Your task to perform on an android device: add a label to a message in the gmail app Image 0: 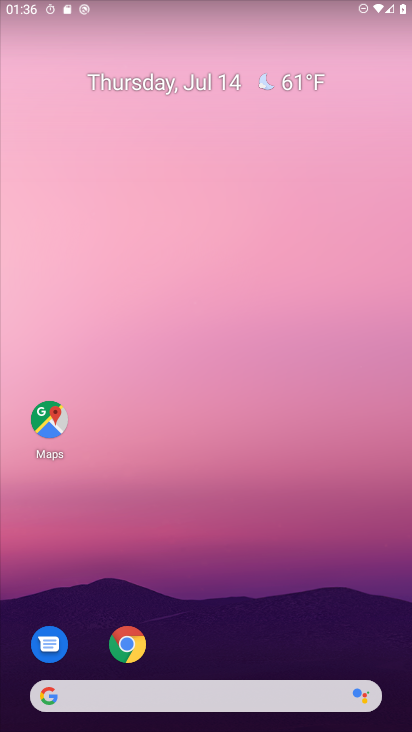
Step 0: drag from (322, 579) to (259, 163)
Your task to perform on an android device: add a label to a message in the gmail app Image 1: 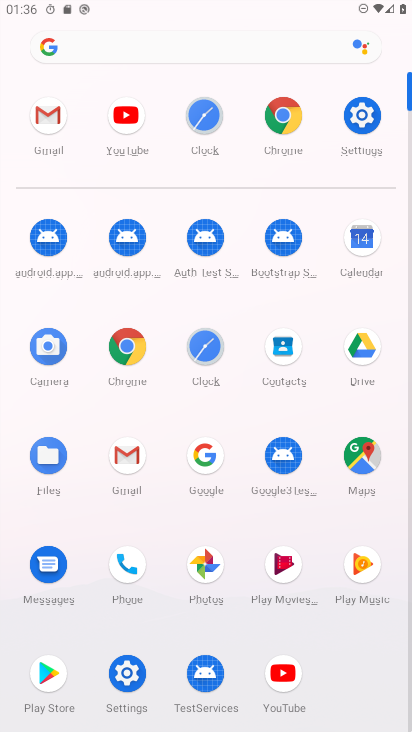
Step 1: click (45, 125)
Your task to perform on an android device: add a label to a message in the gmail app Image 2: 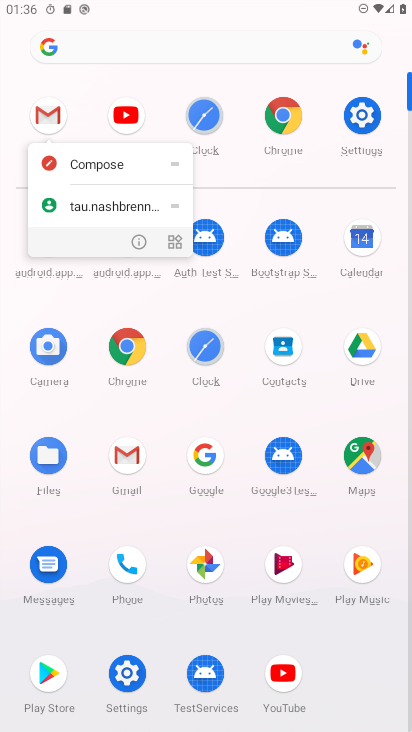
Step 2: click (54, 103)
Your task to perform on an android device: add a label to a message in the gmail app Image 3: 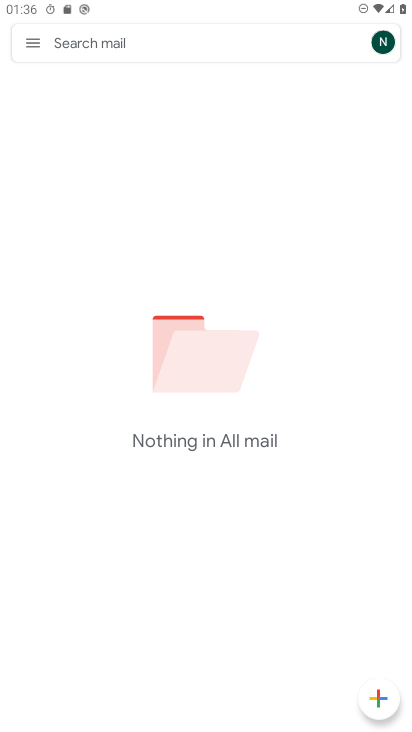
Step 3: task complete